Your task to perform on an android device: Open eBay Image 0: 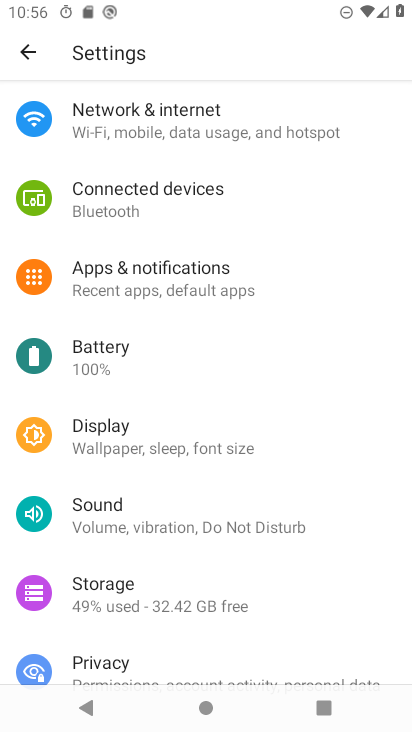
Step 0: press home button
Your task to perform on an android device: Open eBay Image 1: 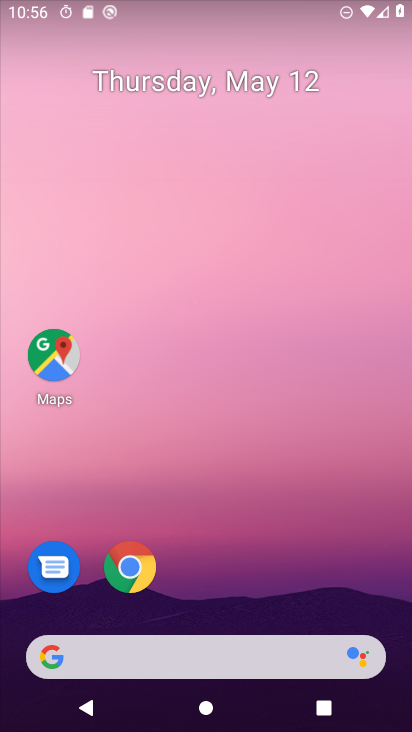
Step 1: click (135, 571)
Your task to perform on an android device: Open eBay Image 2: 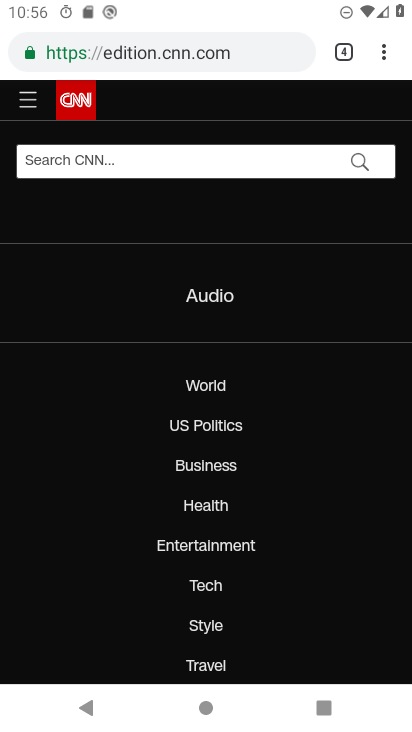
Step 2: click (272, 54)
Your task to perform on an android device: Open eBay Image 3: 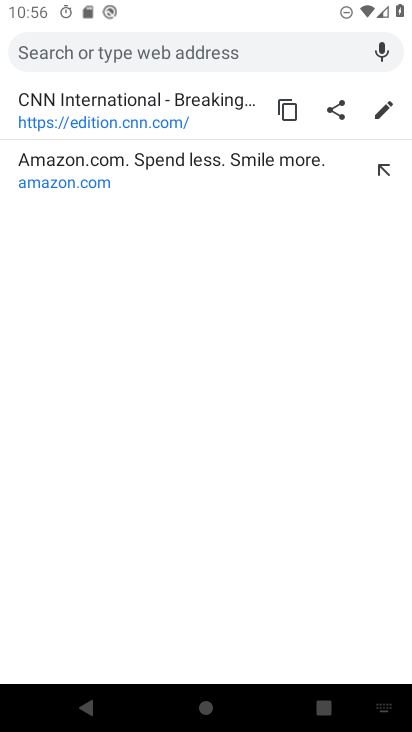
Step 3: type "ebay"
Your task to perform on an android device: Open eBay Image 4: 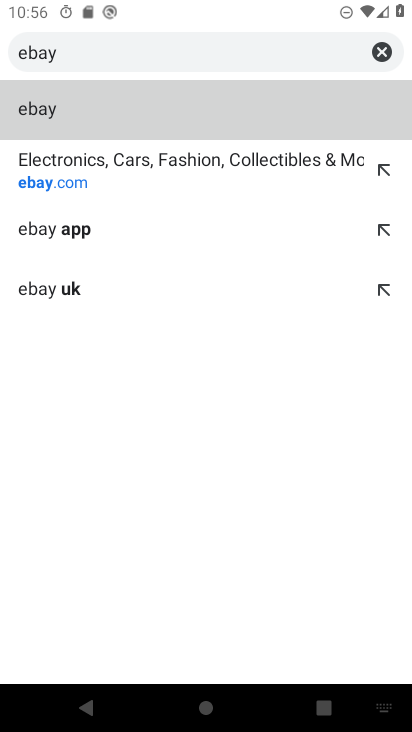
Step 4: click (96, 171)
Your task to perform on an android device: Open eBay Image 5: 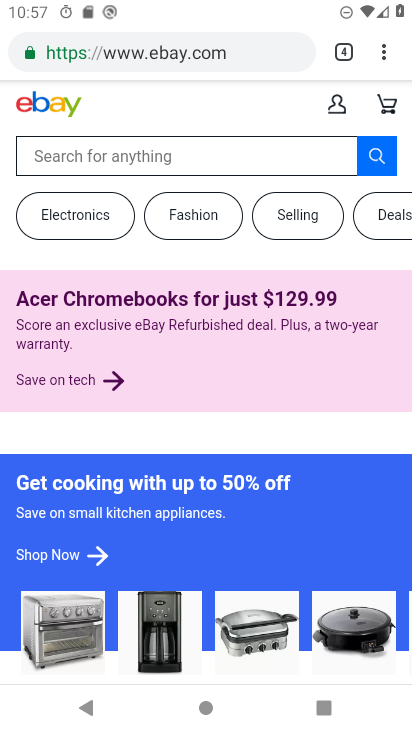
Step 5: task complete